Your task to perform on an android device: Open the calendar app, open the side menu, and click the "Day" option Image 0: 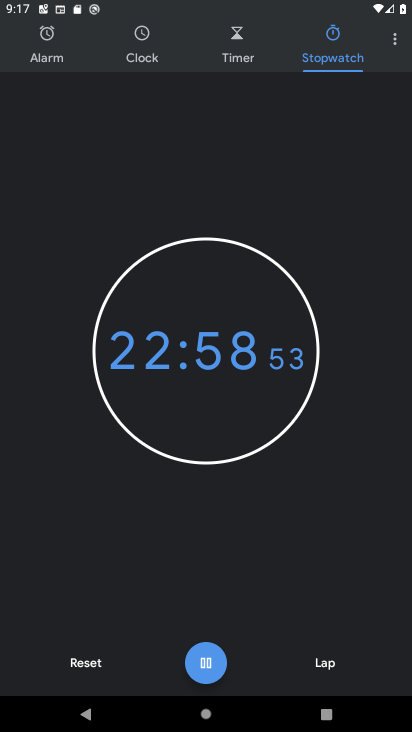
Step 0: press home button
Your task to perform on an android device: Open the calendar app, open the side menu, and click the "Day" option Image 1: 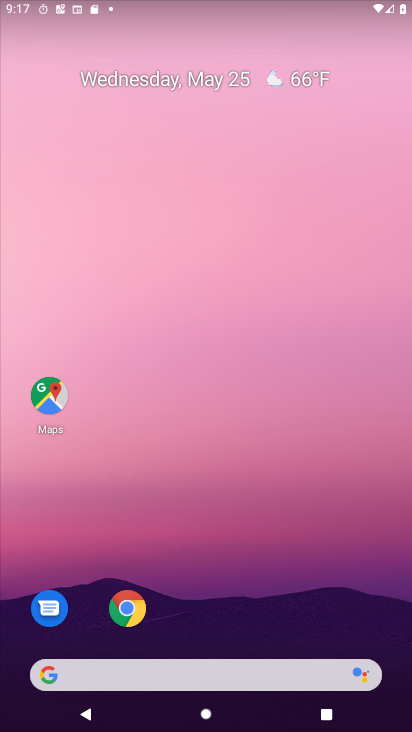
Step 1: drag from (234, 727) to (263, 164)
Your task to perform on an android device: Open the calendar app, open the side menu, and click the "Day" option Image 2: 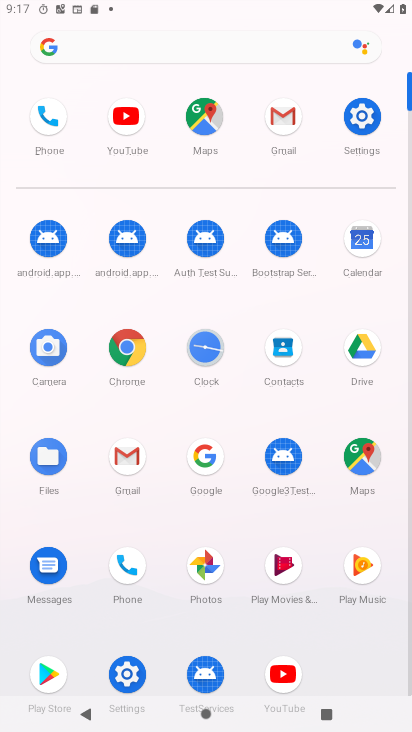
Step 2: click (361, 243)
Your task to perform on an android device: Open the calendar app, open the side menu, and click the "Day" option Image 3: 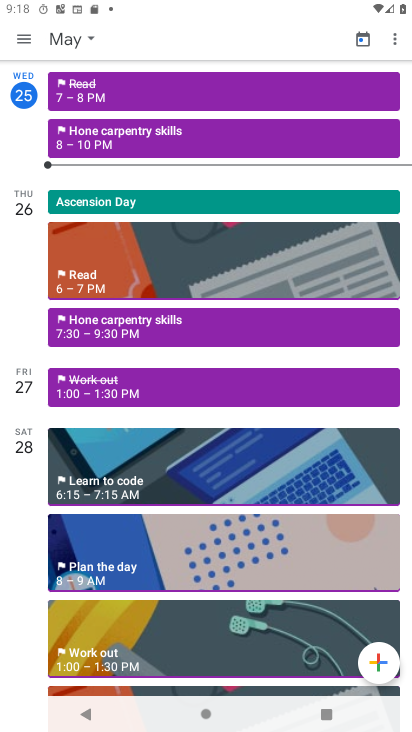
Step 3: click (24, 38)
Your task to perform on an android device: Open the calendar app, open the side menu, and click the "Day" option Image 4: 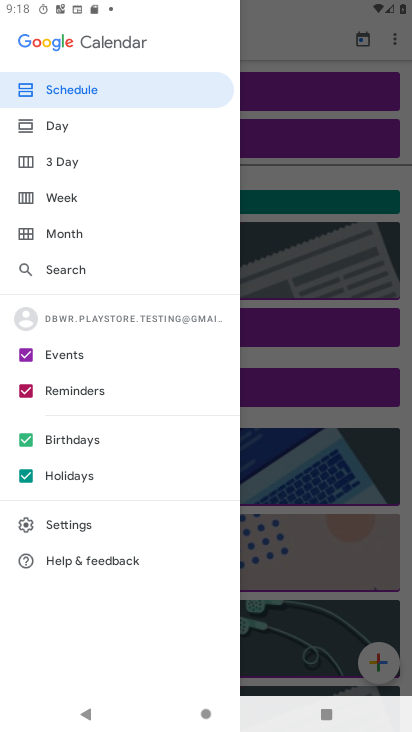
Step 4: click (49, 123)
Your task to perform on an android device: Open the calendar app, open the side menu, and click the "Day" option Image 5: 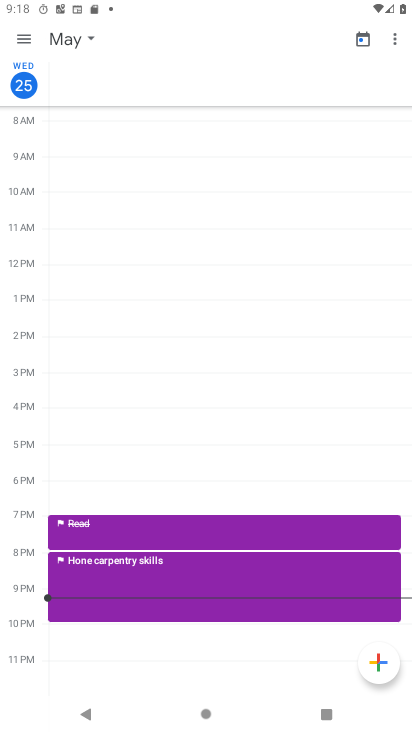
Step 5: task complete